Your task to perform on an android device: Open maps Image 0: 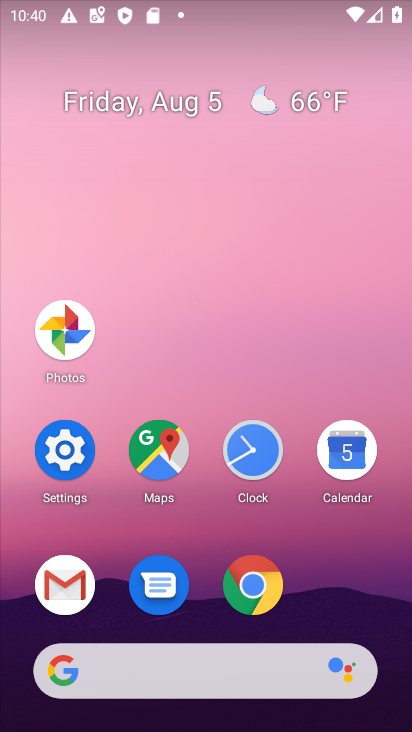
Step 0: click (152, 453)
Your task to perform on an android device: Open maps Image 1: 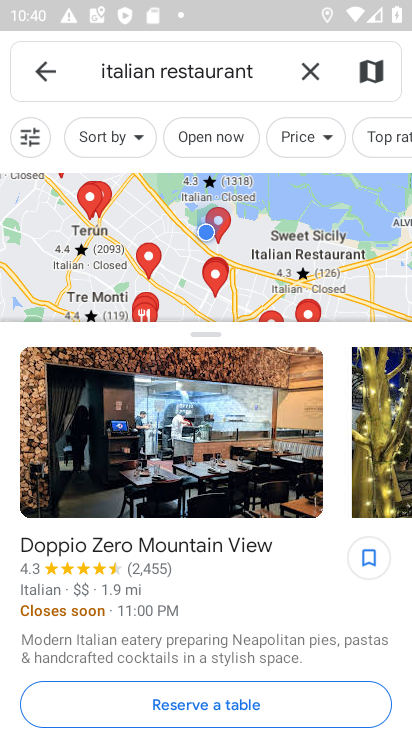
Step 1: click (42, 66)
Your task to perform on an android device: Open maps Image 2: 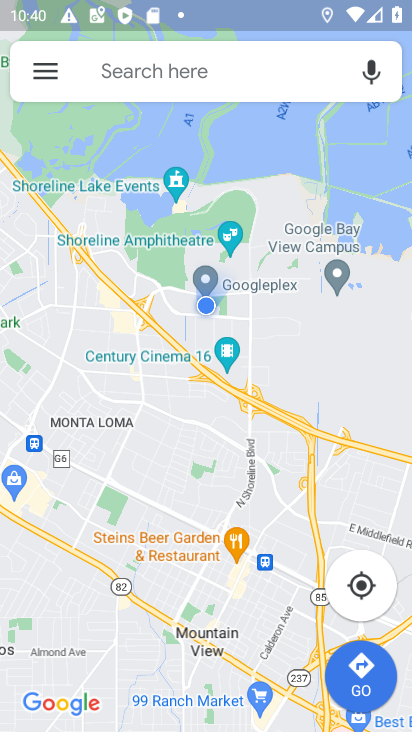
Step 2: task complete